Your task to perform on an android device: Go to ESPN.com Image 0: 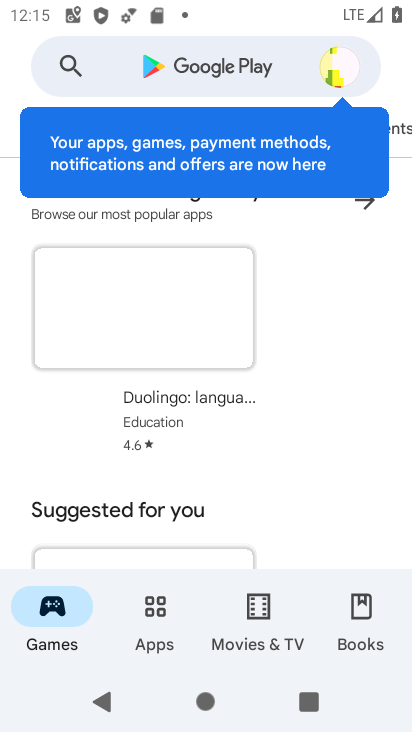
Step 0: press home button
Your task to perform on an android device: Go to ESPN.com Image 1: 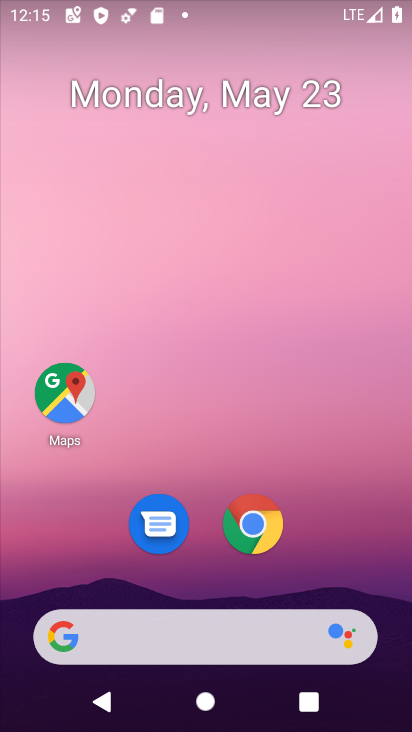
Step 1: click (216, 643)
Your task to perform on an android device: Go to ESPN.com Image 2: 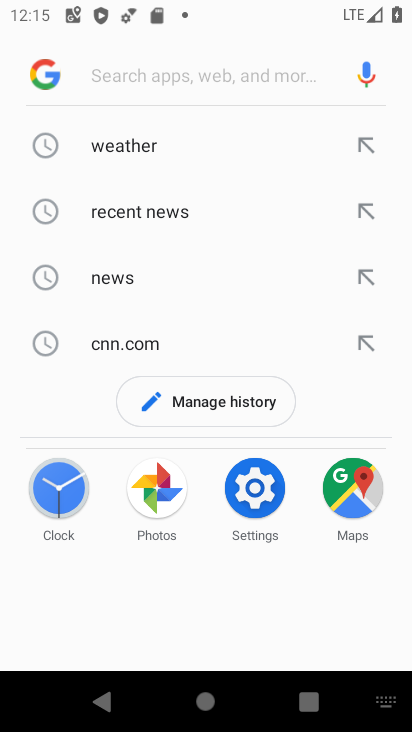
Step 2: type "espn.com"
Your task to perform on an android device: Go to ESPN.com Image 3: 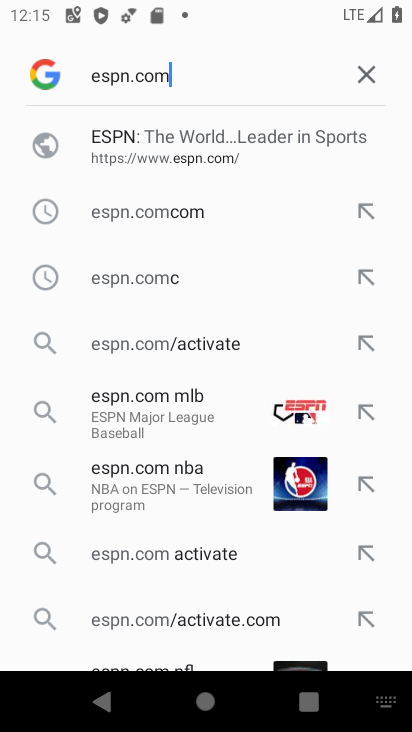
Step 3: click (119, 141)
Your task to perform on an android device: Go to ESPN.com Image 4: 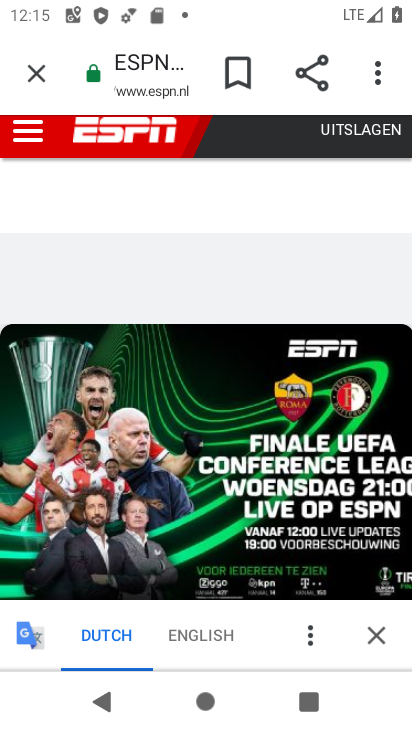
Step 4: task complete